Your task to perform on an android device: read, delete, or share a saved page in the chrome app Image 0: 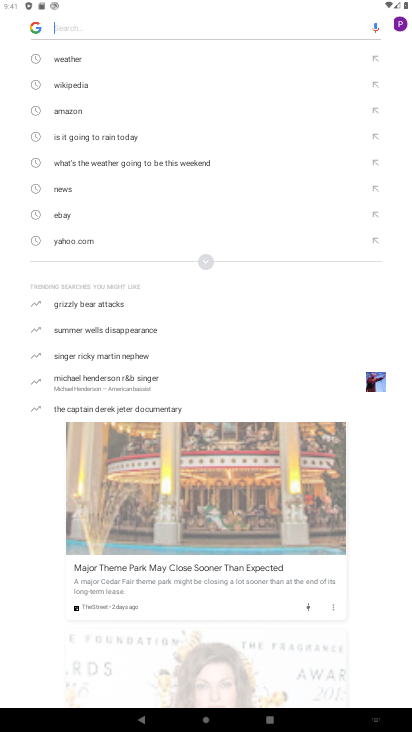
Step 0: press home button
Your task to perform on an android device: read, delete, or share a saved page in the chrome app Image 1: 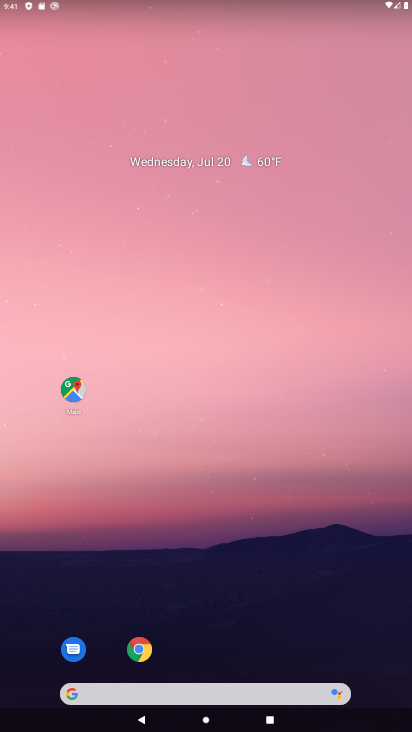
Step 1: click (146, 646)
Your task to perform on an android device: read, delete, or share a saved page in the chrome app Image 2: 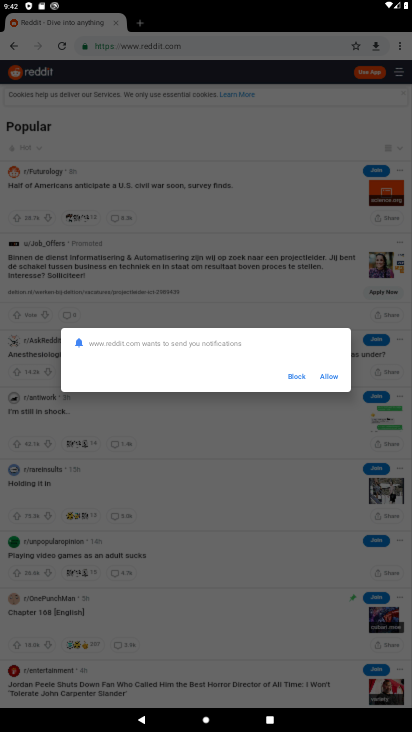
Step 2: click (390, 52)
Your task to perform on an android device: read, delete, or share a saved page in the chrome app Image 3: 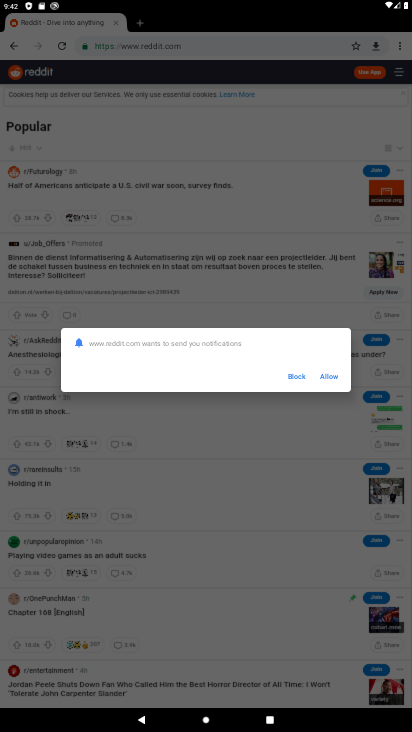
Step 3: click (335, 380)
Your task to perform on an android device: read, delete, or share a saved page in the chrome app Image 4: 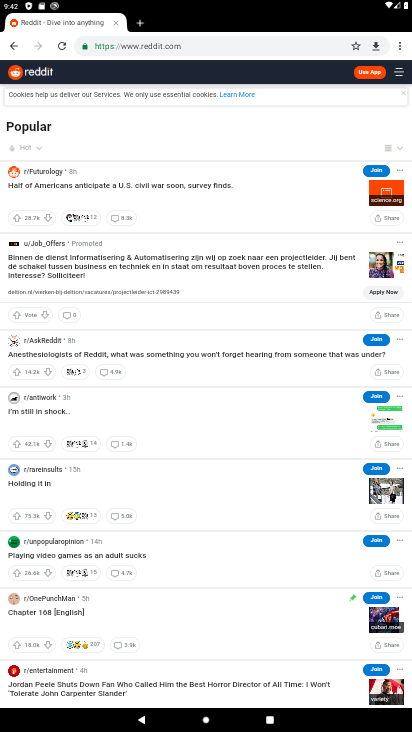
Step 4: click (404, 47)
Your task to perform on an android device: read, delete, or share a saved page in the chrome app Image 5: 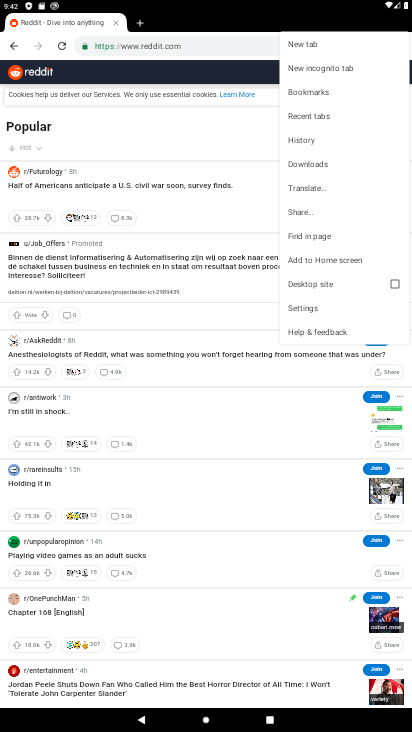
Step 5: click (290, 164)
Your task to perform on an android device: read, delete, or share a saved page in the chrome app Image 6: 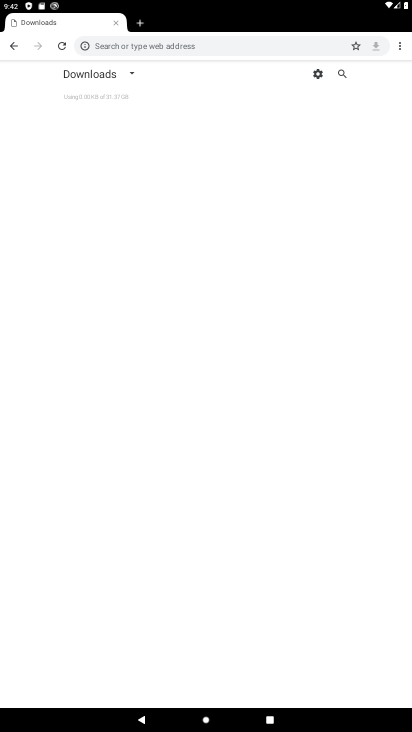
Step 6: task complete